Your task to perform on an android device: open sync settings in chrome Image 0: 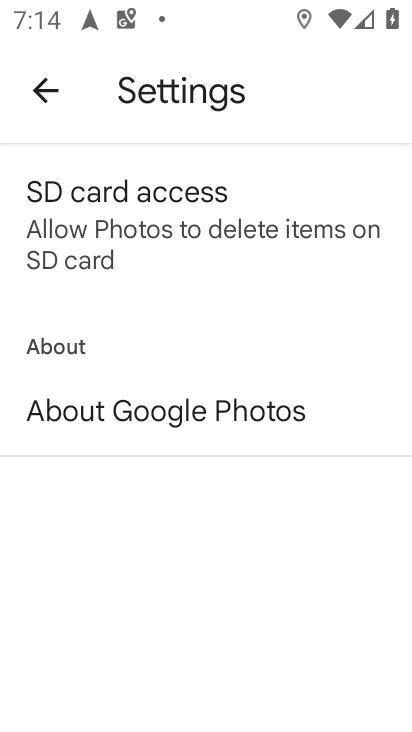
Step 0: press home button
Your task to perform on an android device: open sync settings in chrome Image 1: 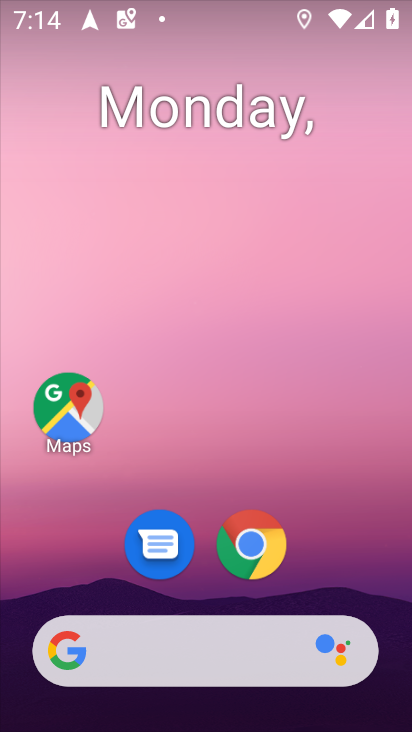
Step 1: click (249, 546)
Your task to perform on an android device: open sync settings in chrome Image 2: 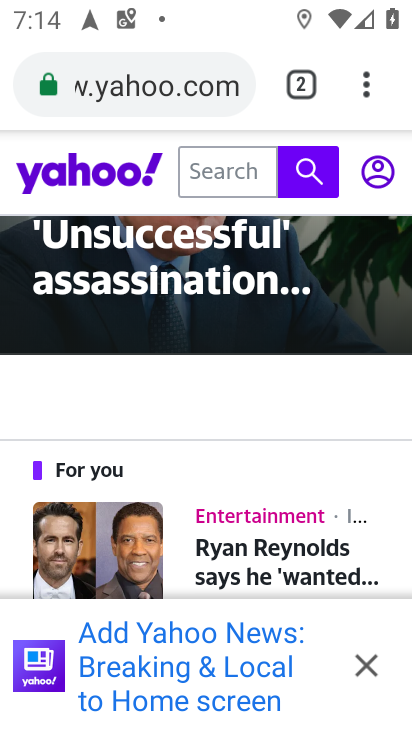
Step 2: click (365, 78)
Your task to perform on an android device: open sync settings in chrome Image 3: 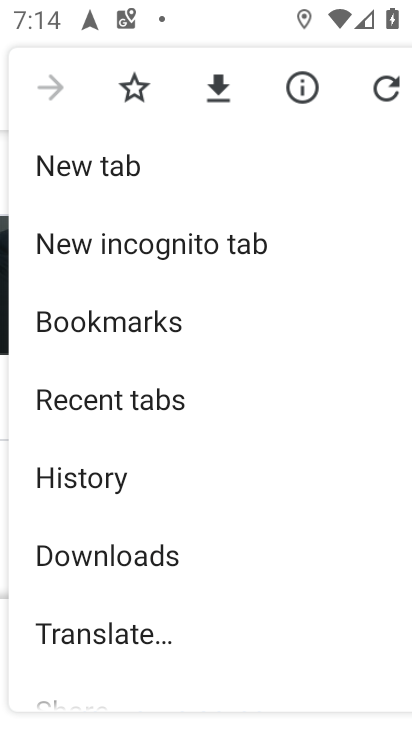
Step 3: drag from (214, 450) to (202, 104)
Your task to perform on an android device: open sync settings in chrome Image 4: 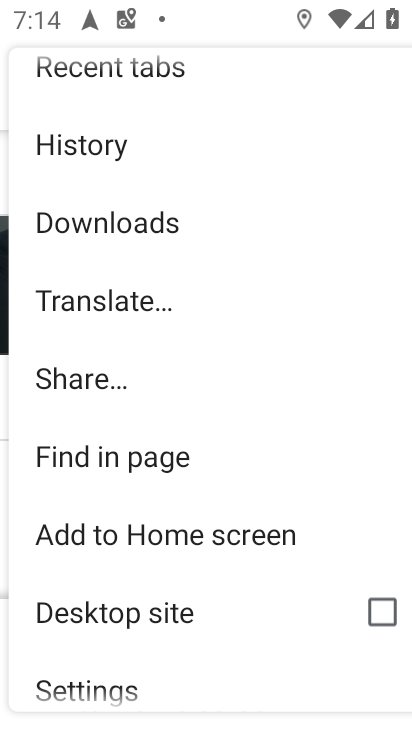
Step 4: click (122, 693)
Your task to perform on an android device: open sync settings in chrome Image 5: 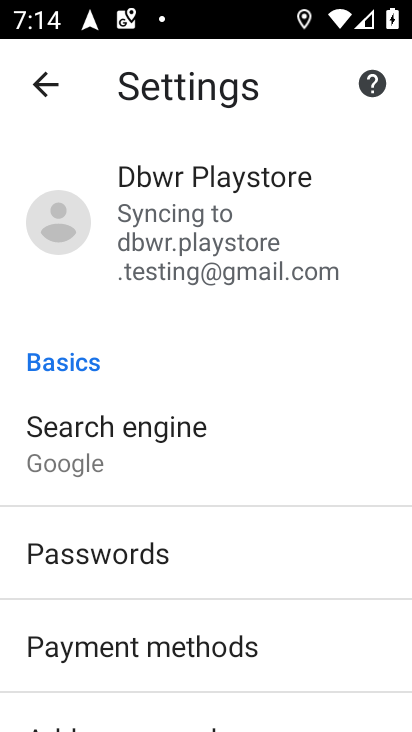
Step 5: click (188, 201)
Your task to perform on an android device: open sync settings in chrome Image 6: 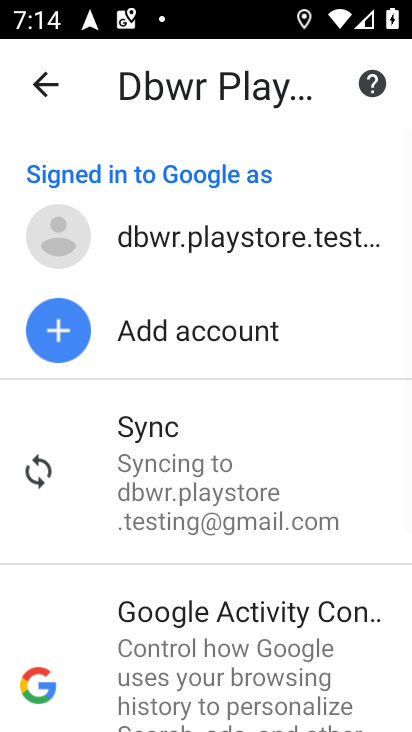
Step 6: click (142, 457)
Your task to perform on an android device: open sync settings in chrome Image 7: 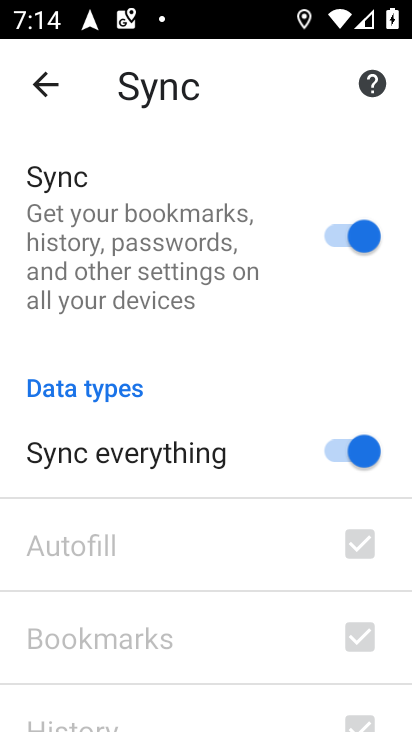
Step 7: task complete